Your task to perform on an android device: Open calendar and show me the first week of next month Image 0: 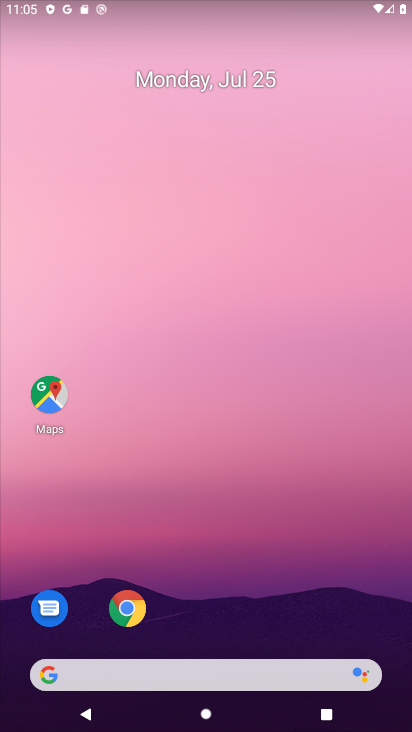
Step 0: click (230, 74)
Your task to perform on an android device: Open calendar and show me the first week of next month Image 1: 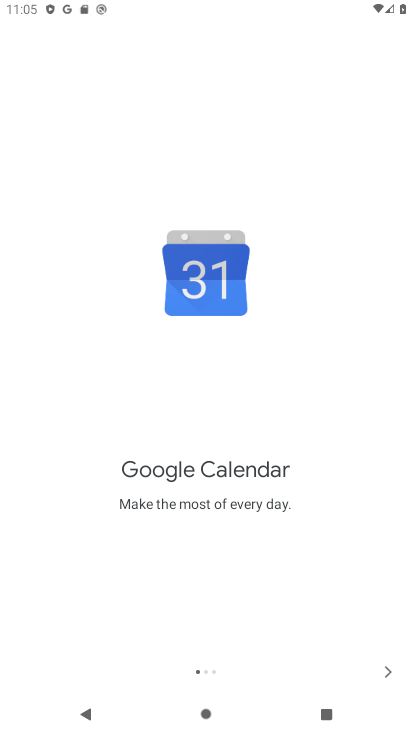
Step 1: click (395, 671)
Your task to perform on an android device: Open calendar and show me the first week of next month Image 2: 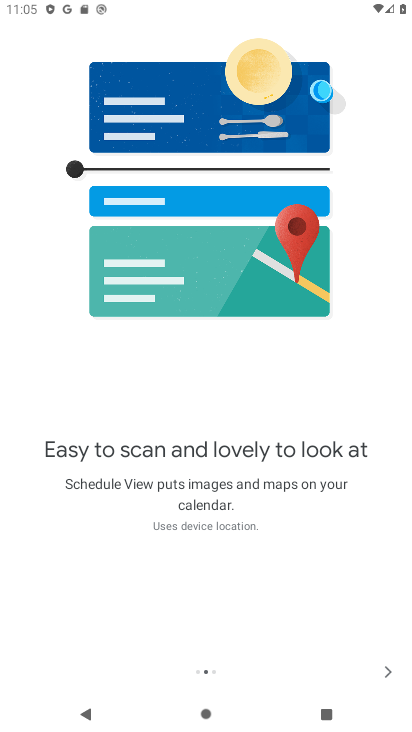
Step 2: click (395, 671)
Your task to perform on an android device: Open calendar and show me the first week of next month Image 3: 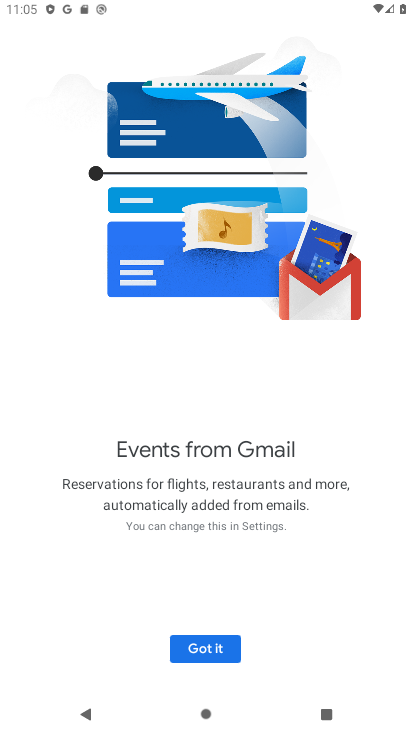
Step 3: click (216, 646)
Your task to perform on an android device: Open calendar and show me the first week of next month Image 4: 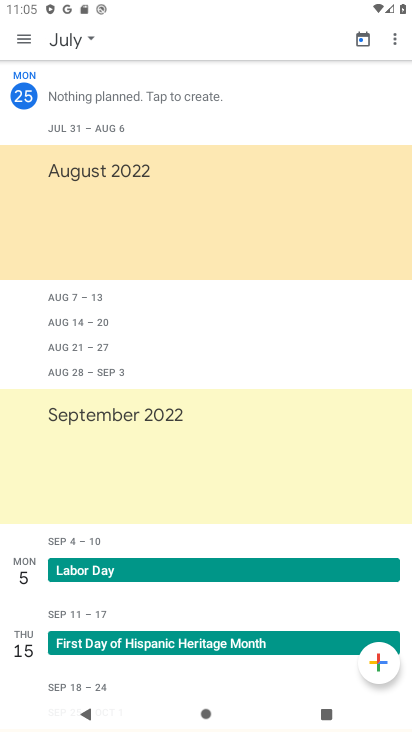
Step 4: click (63, 44)
Your task to perform on an android device: Open calendar and show me the first week of next month Image 5: 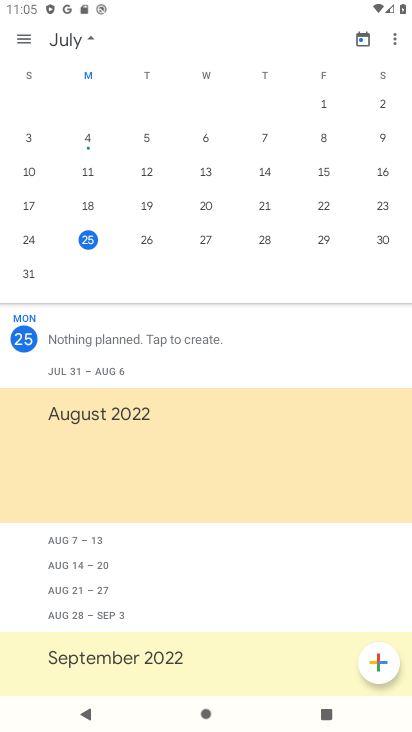
Step 5: task complete